Your task to perform on an android device: change notification settings in the gmail app Image 0: 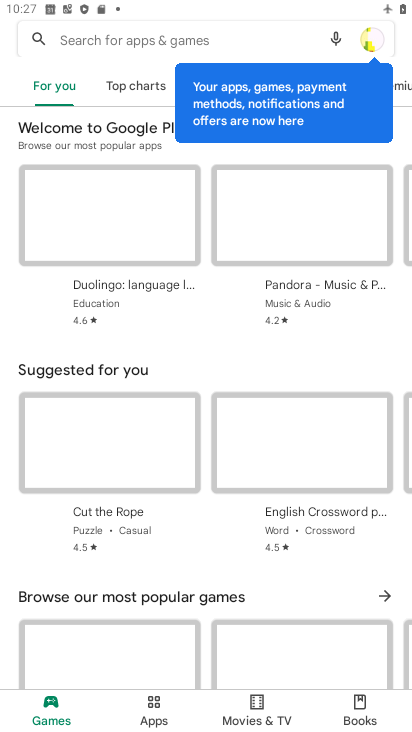
Step 0: press home button
Your task to perform on an android device: change notification settings in the gmail app Image 1: 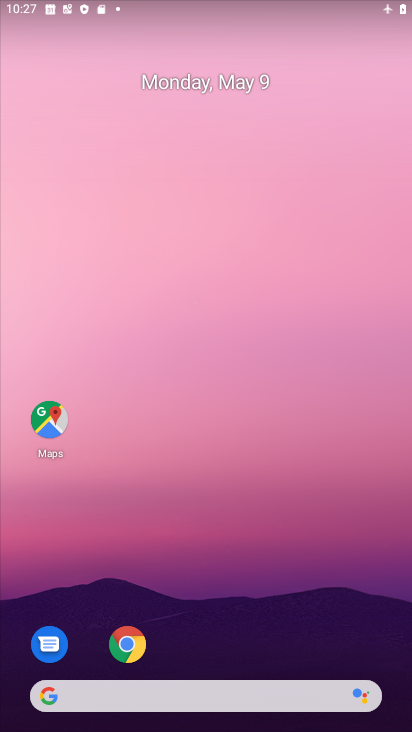
Step 1: drag from (242, 638) to (253, 16)
Your task to perform on an android device: change notification settings in the gmail app Image 2: 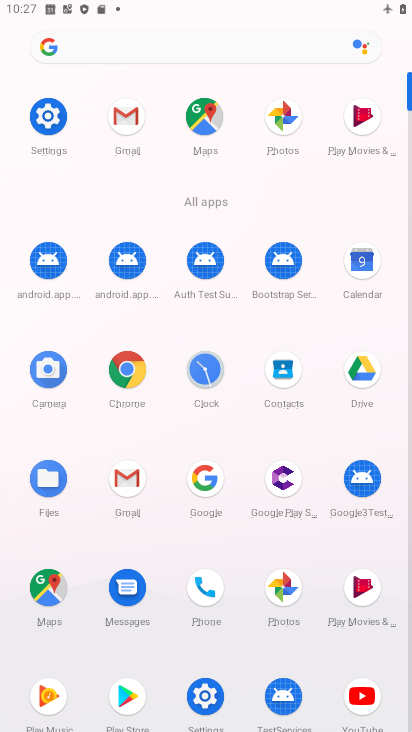
Step 2: click (120, 487)
Your task to perform on an android device: change notification settings in the gmail app Image 3: 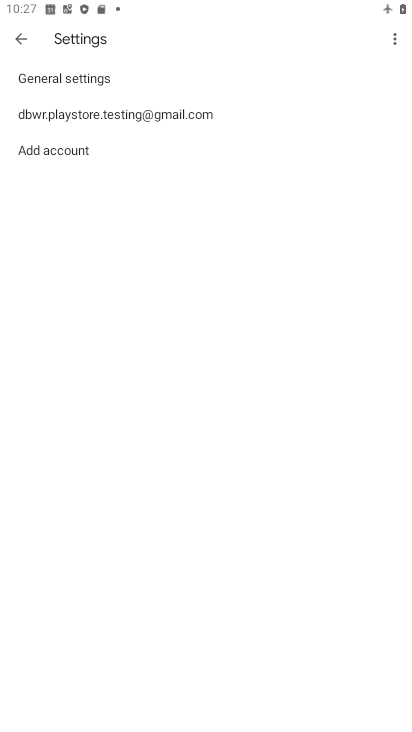
Step 3: click (104, 83)
Your task to perform on an android device: change notification settings in the gmail app Image 4: 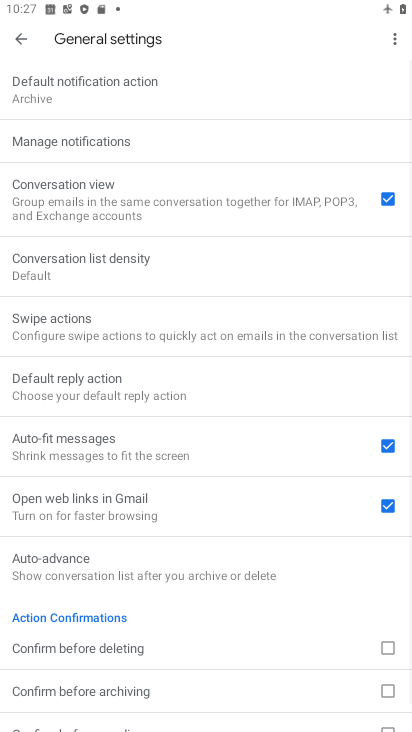
Step 4: click (96, 153)
Your task to perform on an android device: change notification settings in the gmail app Image 5: 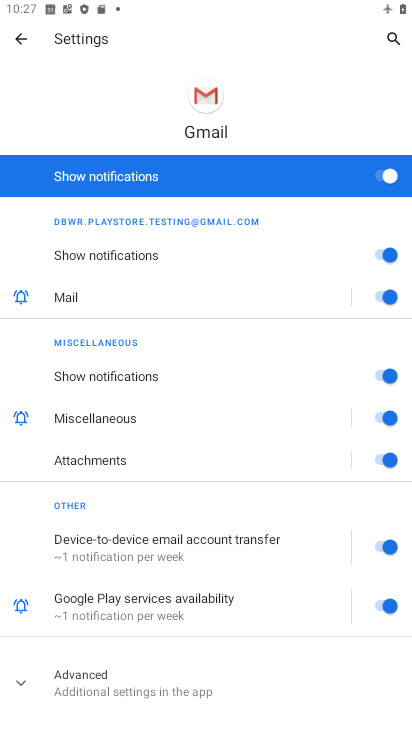
Step 5: click (368, 179)
Your task to perform on an android device: change notification settings in the gmail app Image 6: 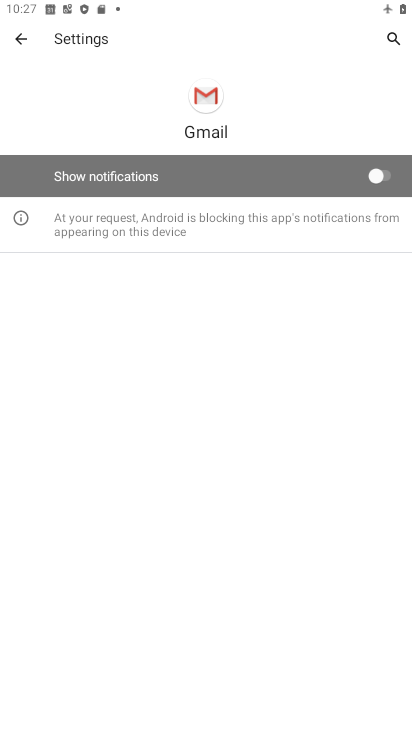
Step 6: task complete